Your task to perform on an android device: Go to Amazon Image 0: 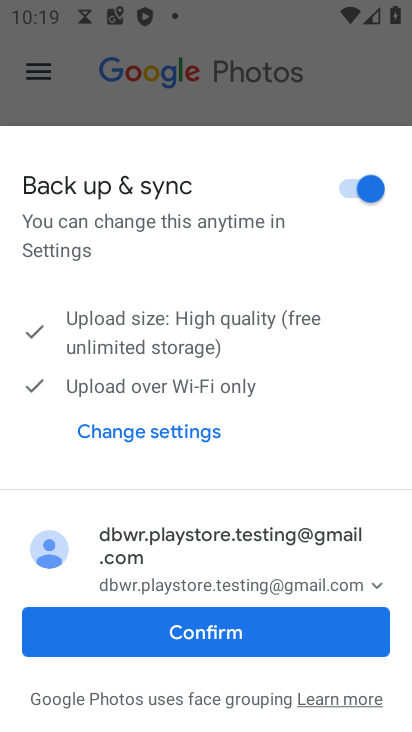
Step 0: press home button
Your task to perform on an android device: Go to Amazon Image 1: 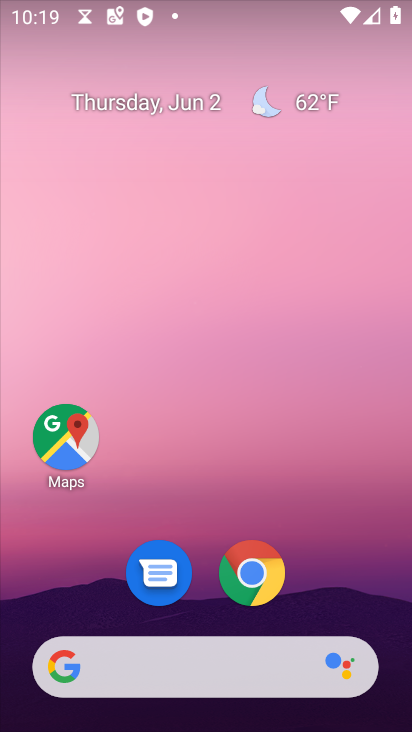
Step 1: click (253, 571)
Your task to perform on an android device: Go to Amazon Image 2: 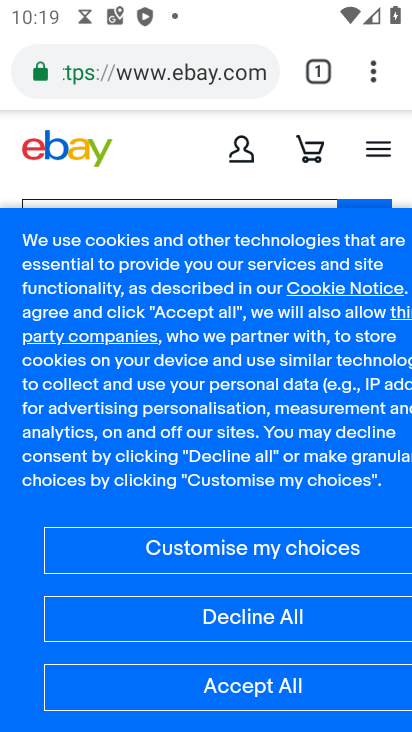
Step 2: click (238, 68)
Your task to perform on an android device: Go to Amazon Image 3: 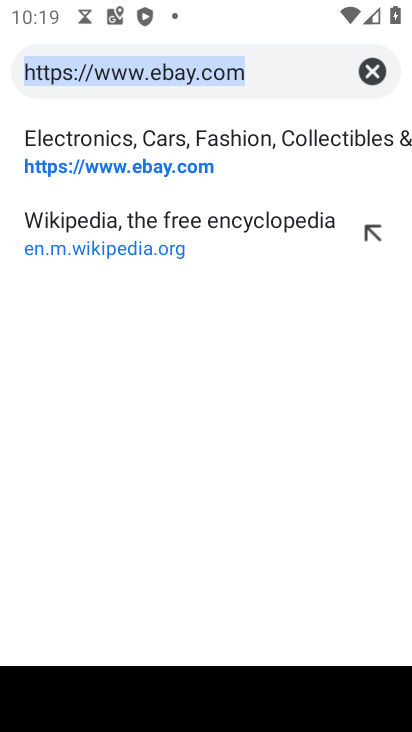
Step 3: click (365, 69)
Your task to perform on an android device: Go to Amazon Image 4: 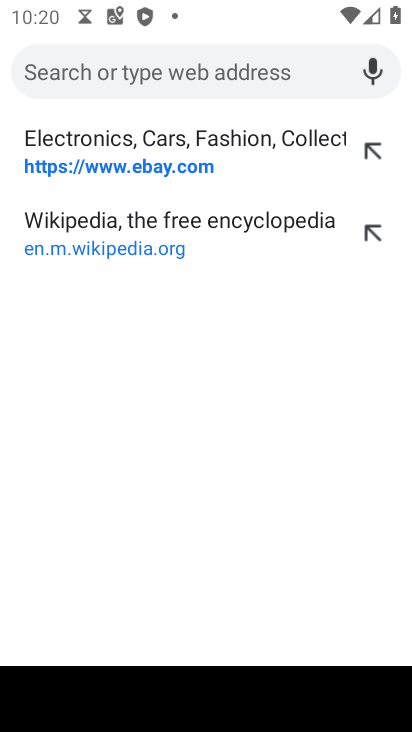
Step 4: type "Amazon"
Your task to perform on an android device: Go to Amazon Image 5: 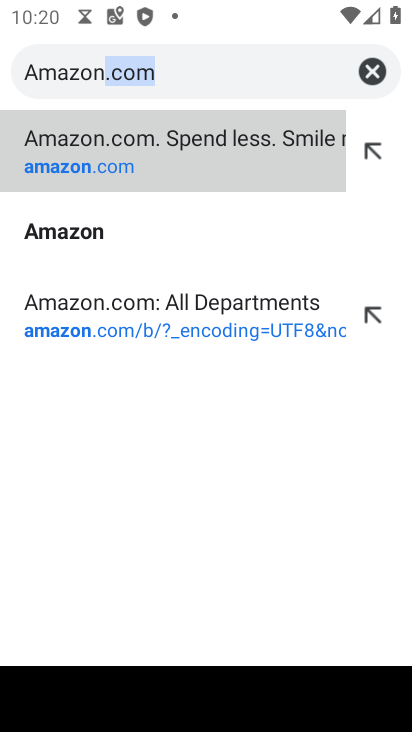
Step 5: type ""
Your task to perform on an android device: Go to Amazon Image 6: 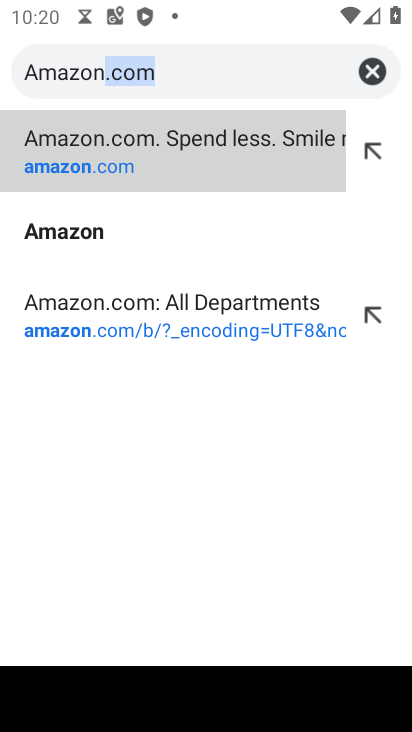
Step 6: click (119, 183)
Your task to perform on an android device: Go to Amazon Image 7: 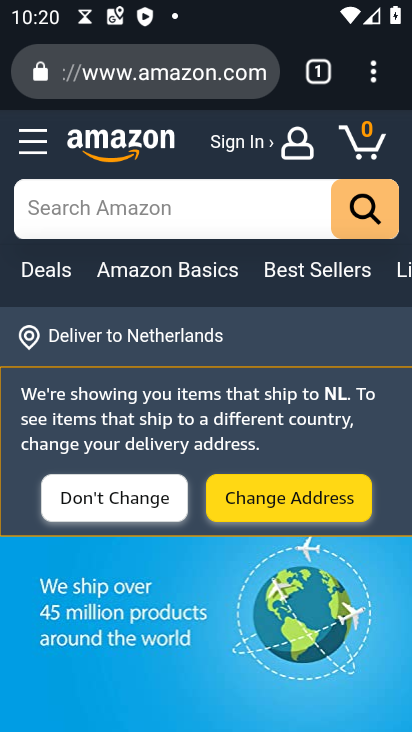
Step 7: task complete